Your task to perform on an android device: Play the last video I watched on Youtube Image 0: 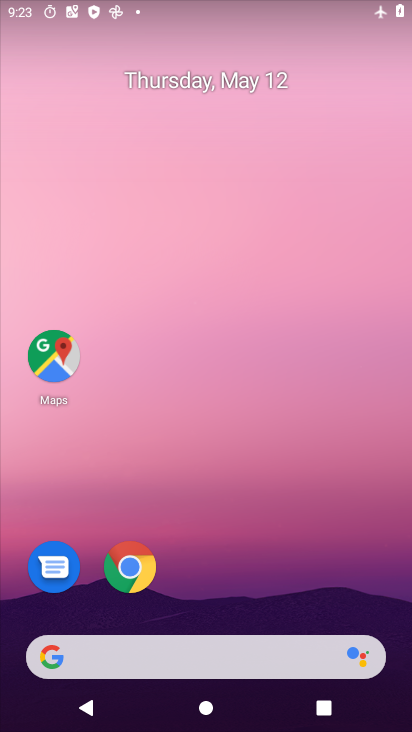
Step 0: drag from (223, 583) to (214, 138)
Your task to perform on an android device: Play the last video I watched on Youtube Image 1: 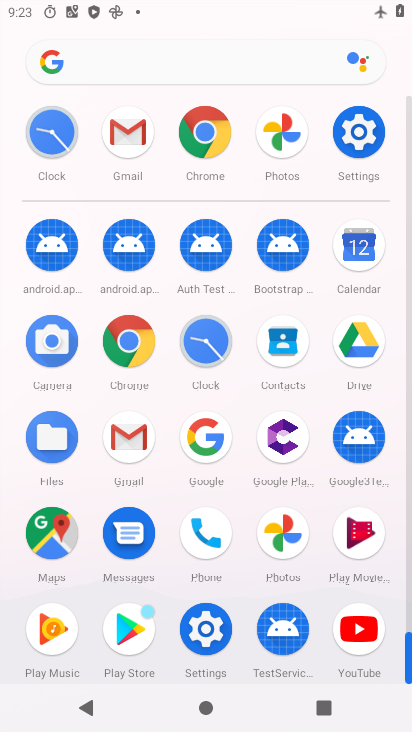
Step 1: click (345, 625)
Your task to perform on an android device: Play the last video I watched on Youtube Image 2: 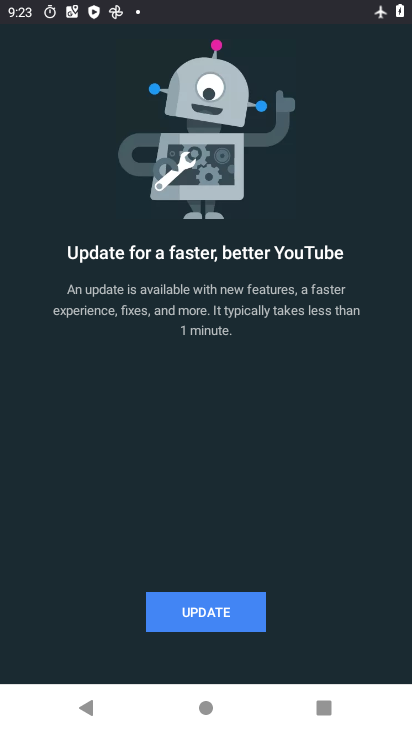
Step 2: click (235, 612)
Your task to perform on an android device: Play the last video I watched on Youtube Image 3: 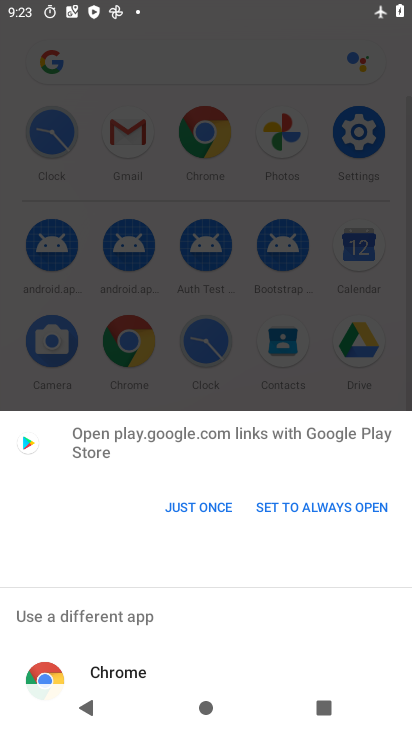
Step 3: click (209, 503)
Your task to perform on an android device: Play the last video I watched on Youtube Image 4: 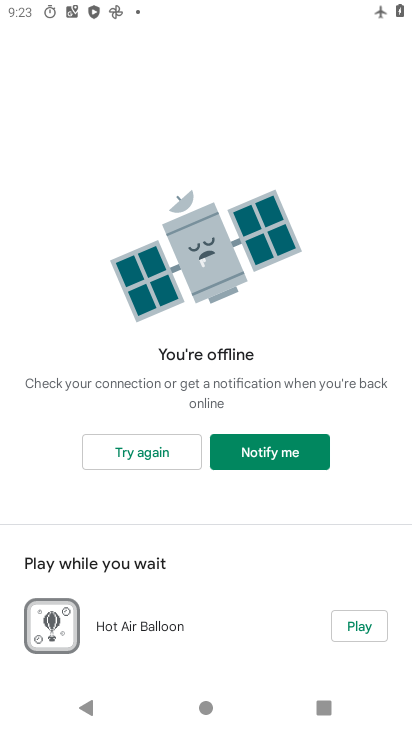
Step 4: task complete